Your task to perform on an android device: Open settings Image 0: 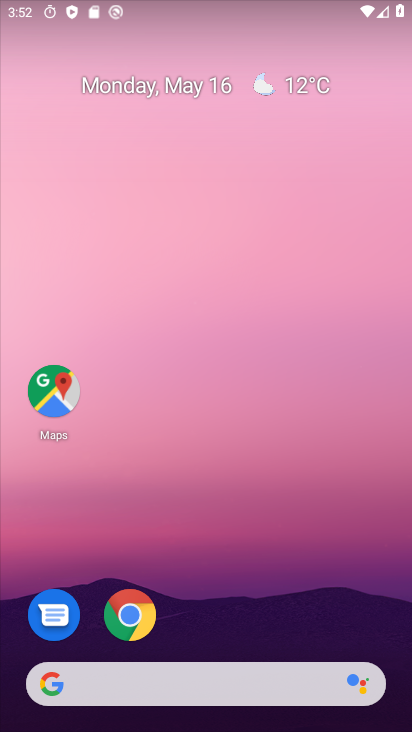
Step 0: drag from (340, 686) to (99, 136)
Your task to perform on an android device: Open settings Image 1: 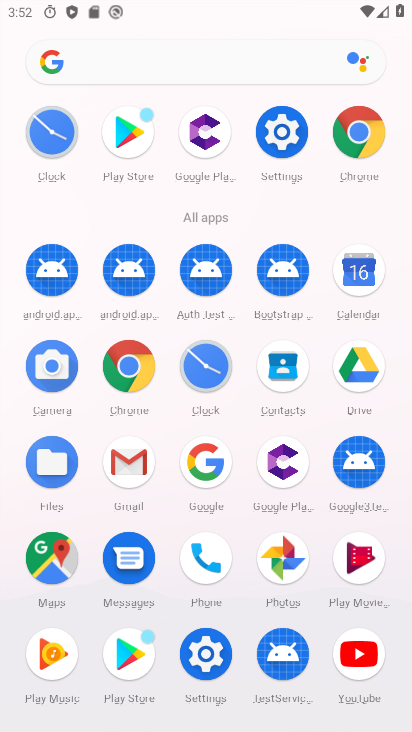
Step 1: click (277, 145)
Your task to perform on an android device: Open settings Image 2: 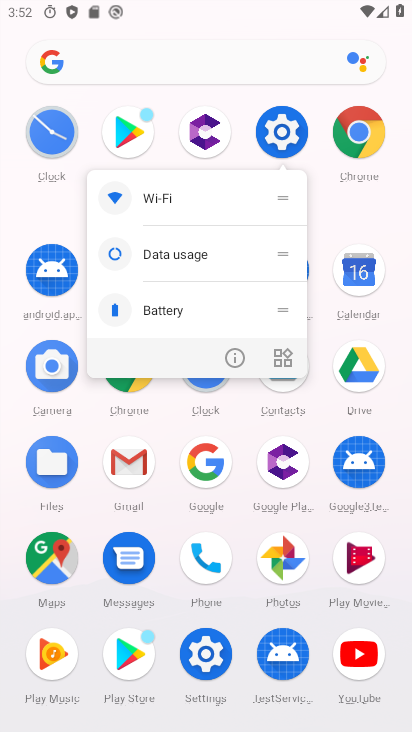
Step 2: click (280, 128)
Your task to perform on an android device: Open settings Image 3: 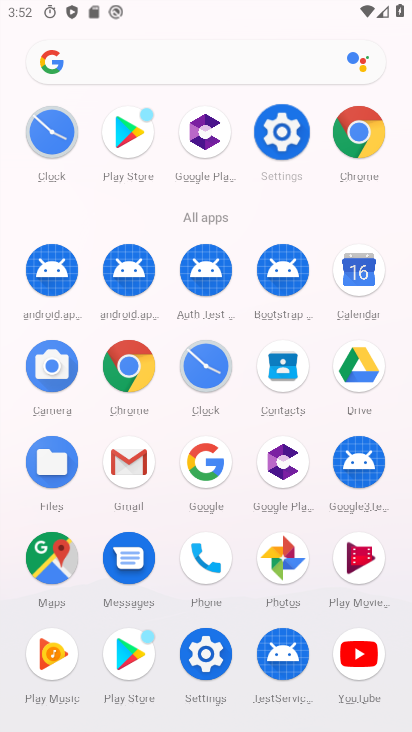
Step 3: click (285, 131)
Your task to perform on an android device: Open settings Image 4: 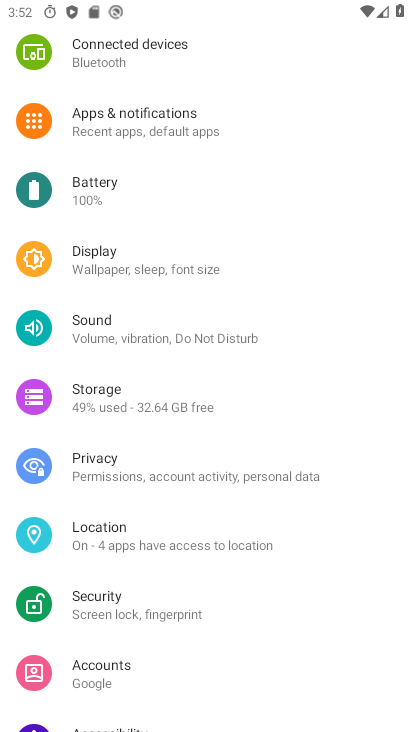
Step 4: task complete